Your task to perform on an android device: open app "Flipkart Online Shopping App" (install if not already installed) Image 0: 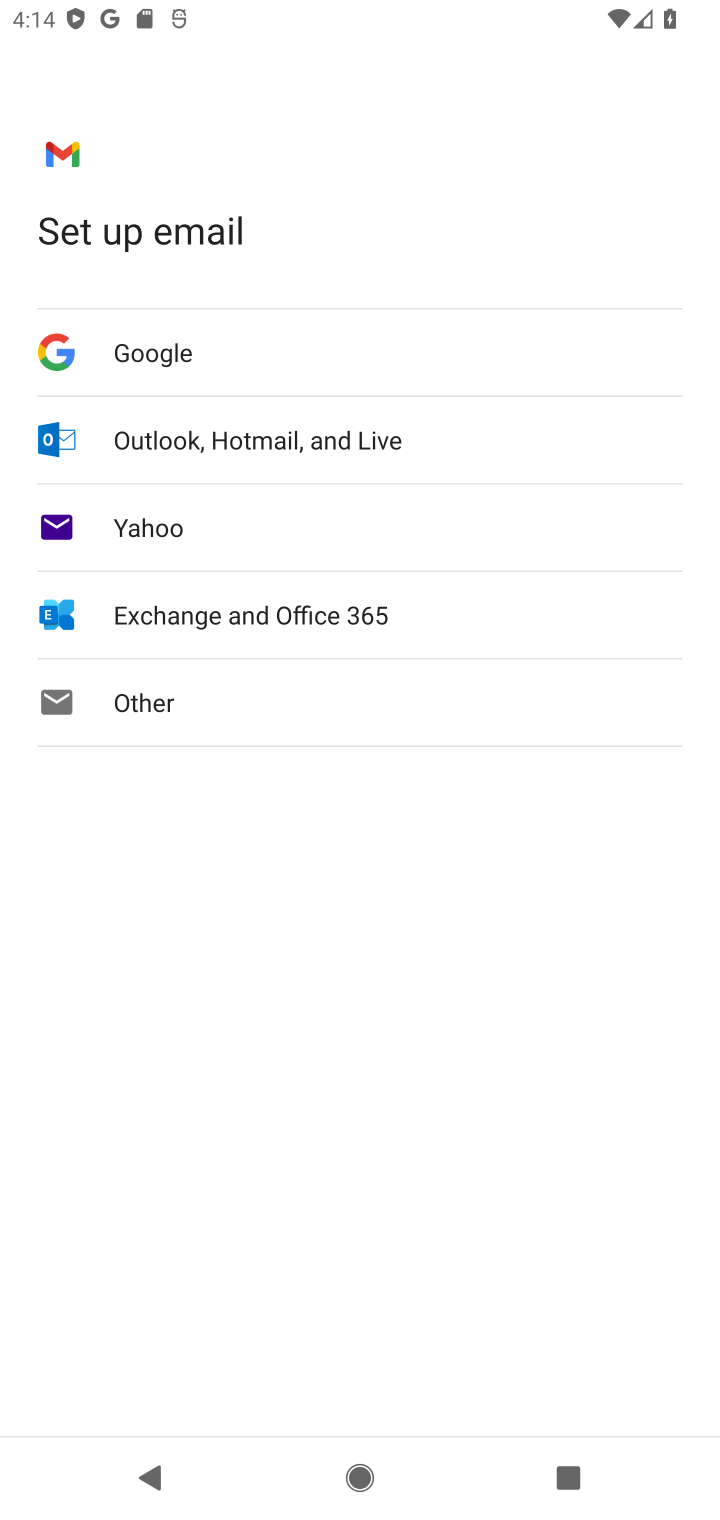
Step 0: press home button
Your task to perform on an android device: open app "Flipkart Online Shopping App" (install if not already installed) Image 1: 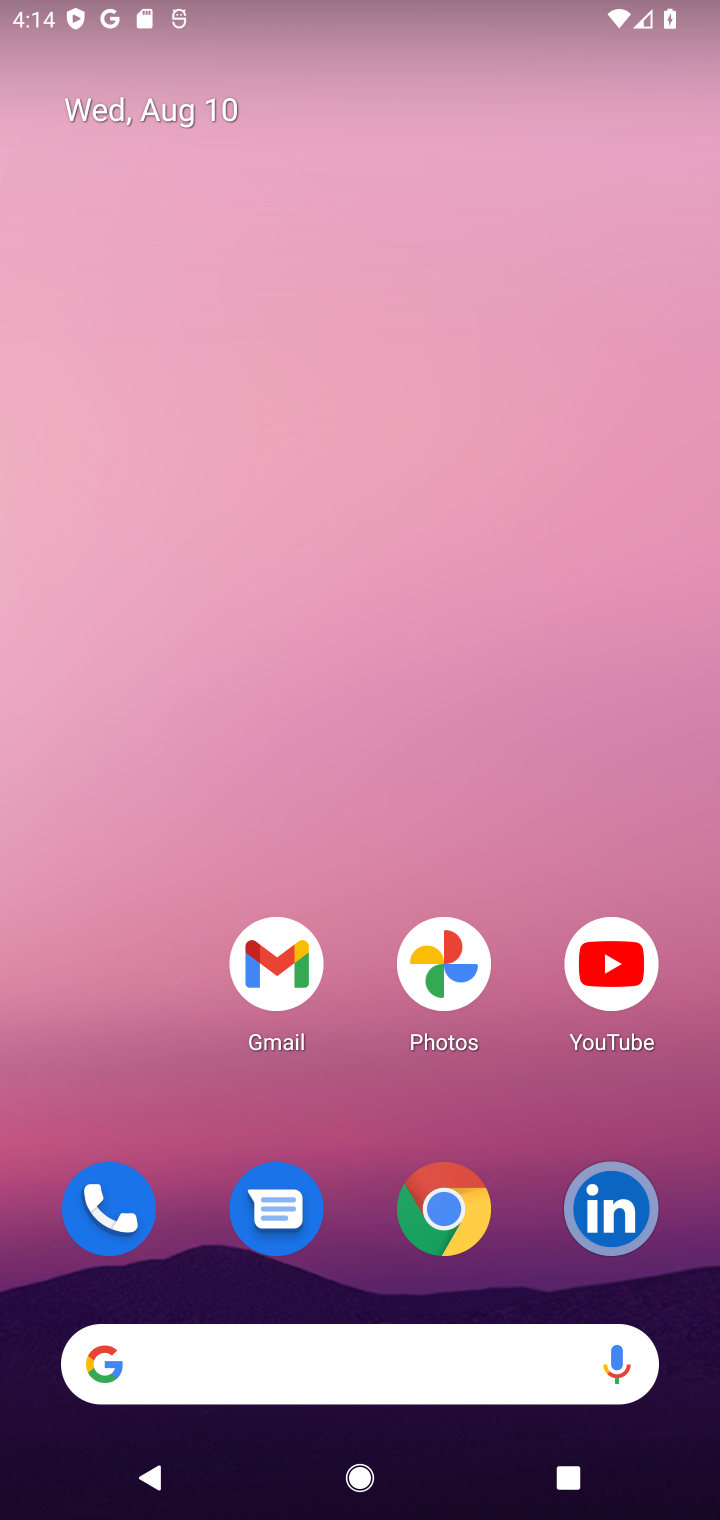
Step 1: drag from (202, 1297) to (268, 272)
Your task to perform on an android device: open app "Flipkart Online Shopping App" (install if not already installed) Image 2: 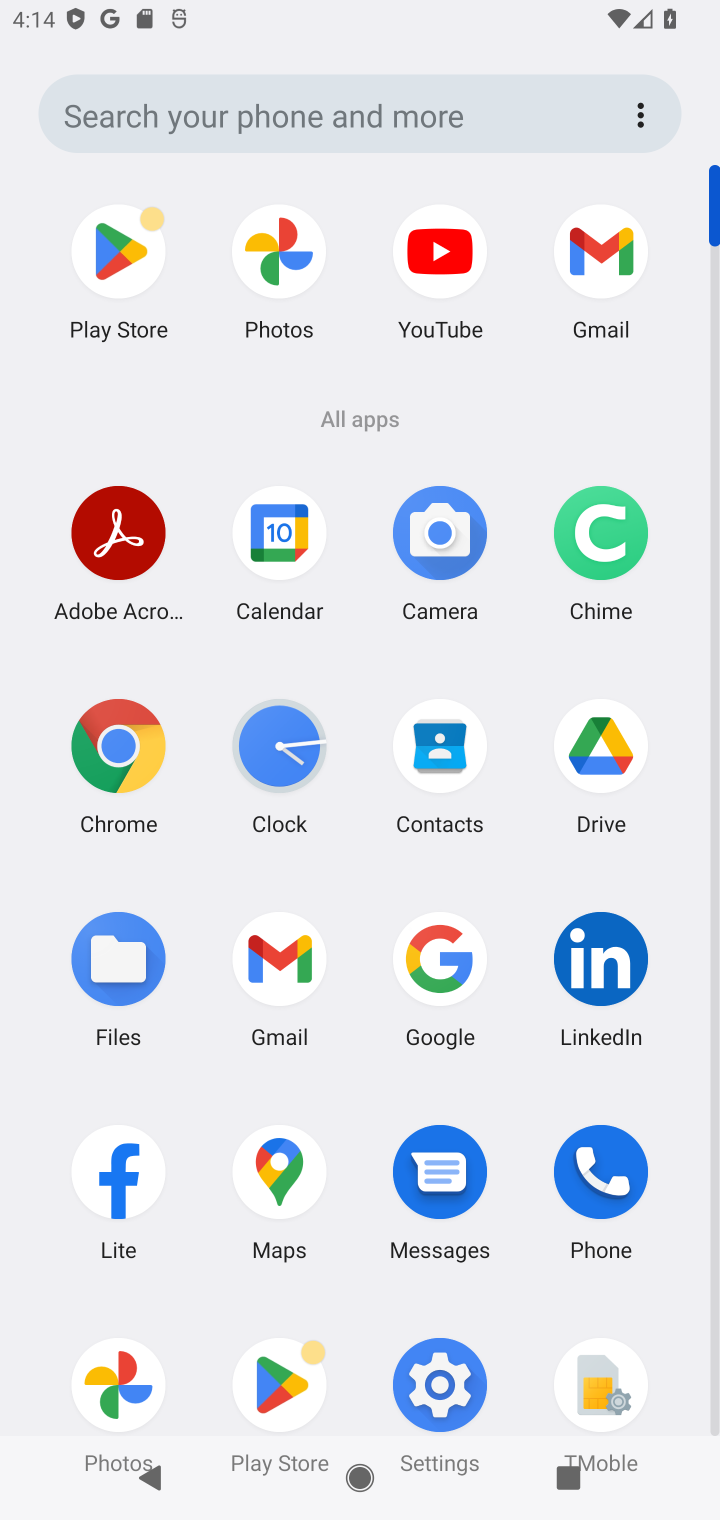
Step 2: click (386, 131)
Your task to perform on an android device: open app "Flipkart Online Shopping App" (install if not already installed) Image 3: 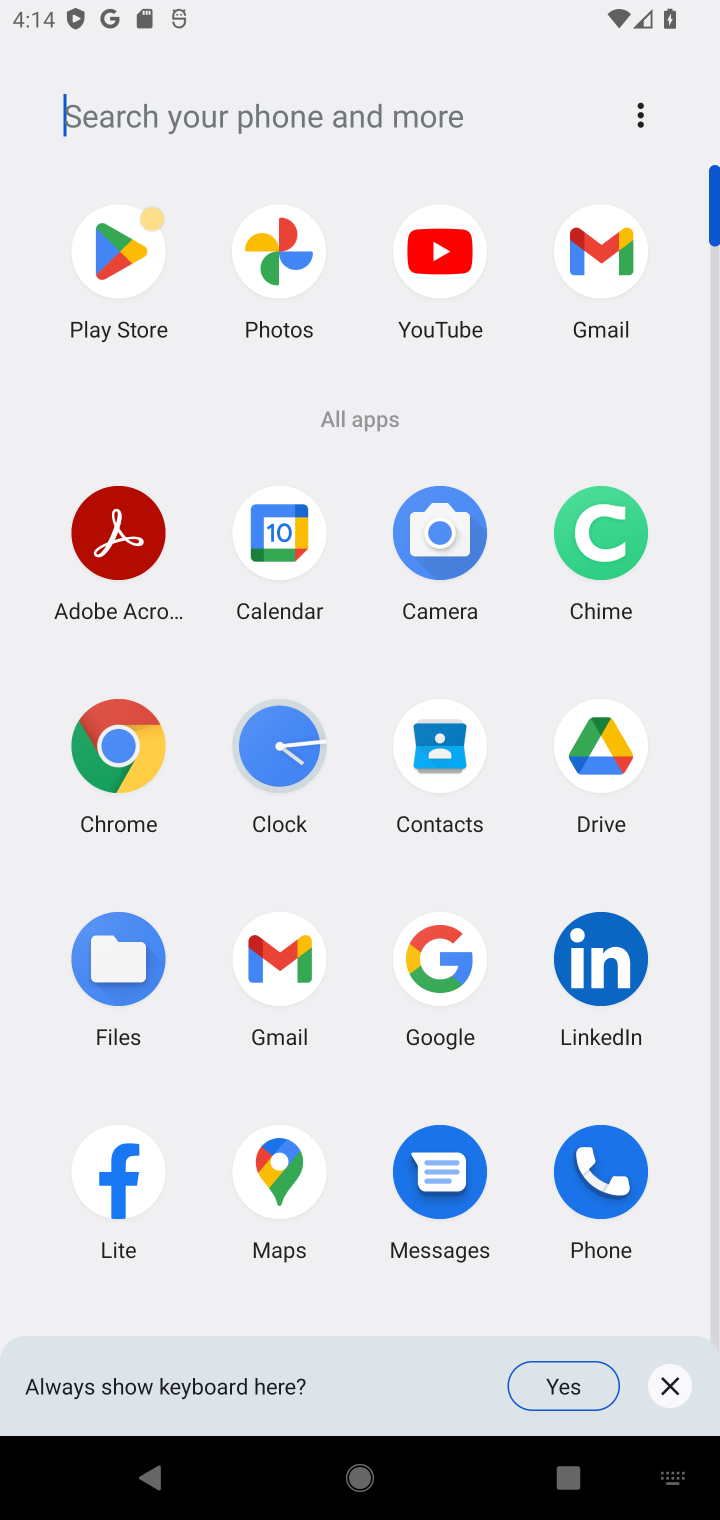
Step 3: click (112, 289)
Your task to perform on an android device: open app "Flipkart Online Shopping App" (install if not already installed) Image 4: 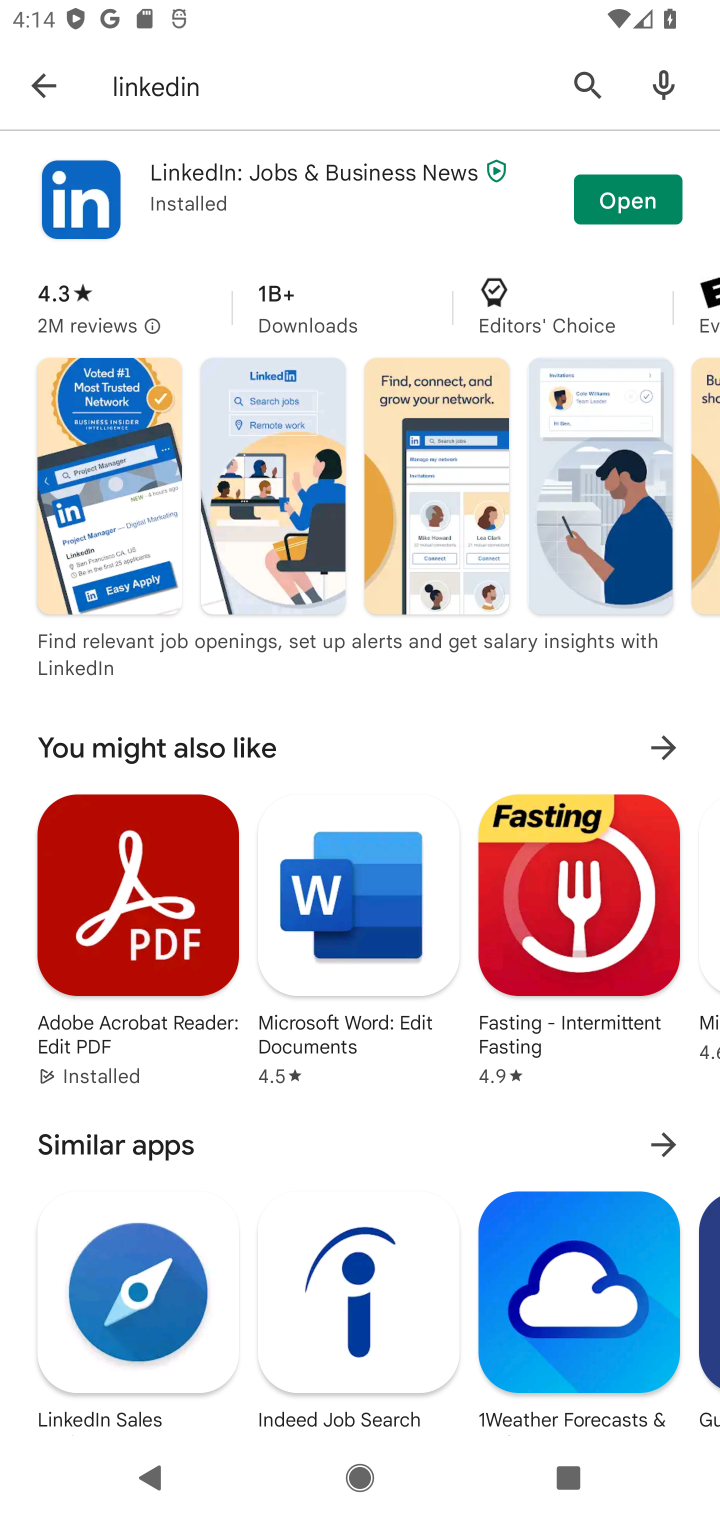
Step 4: click (586, 69)
Your task to perform on an android device: open app "Flipkart Online Shopping App" (install if not already installed) Image 5: 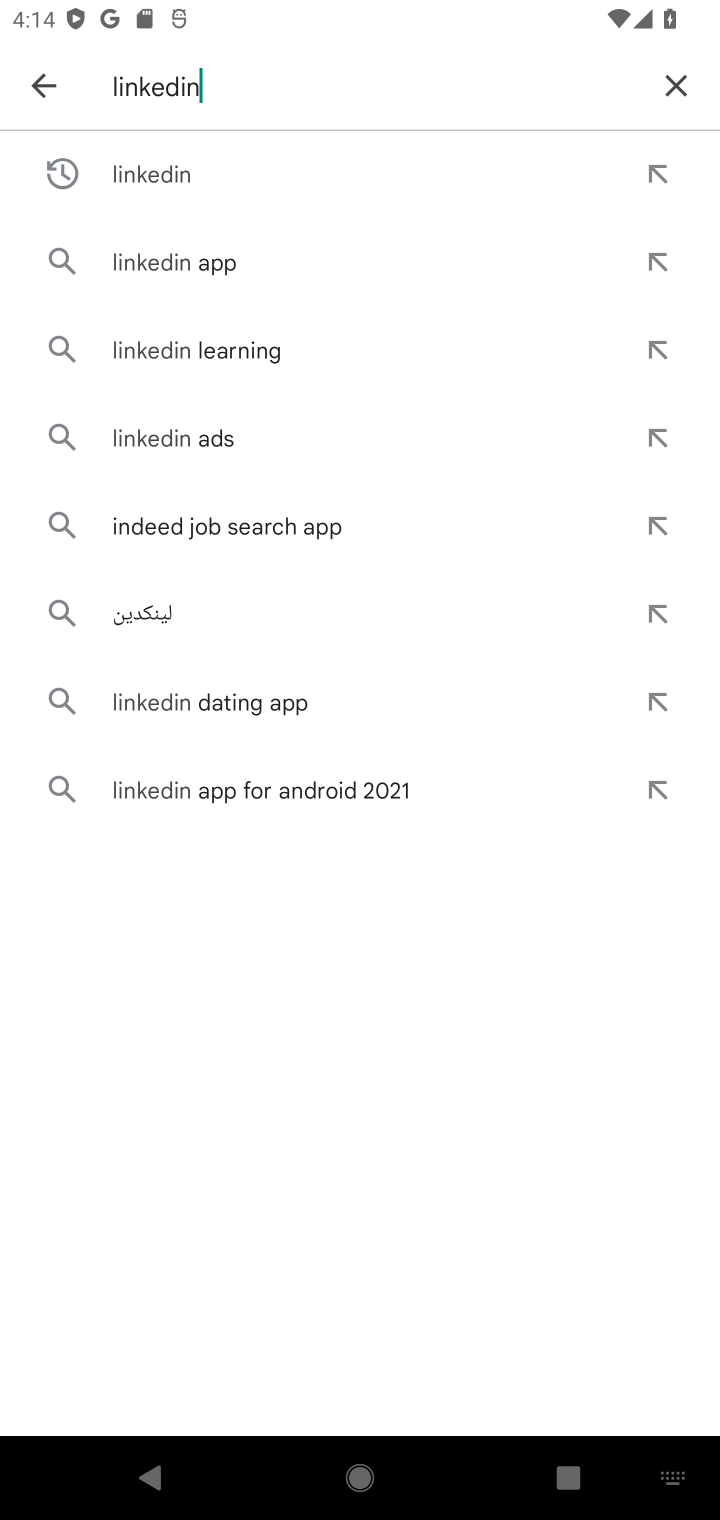
Step 5: click (686, 92)
Your task to perform on an android device: open app "Flipkart Online Shopping App" (install if not already installed) Image 6: 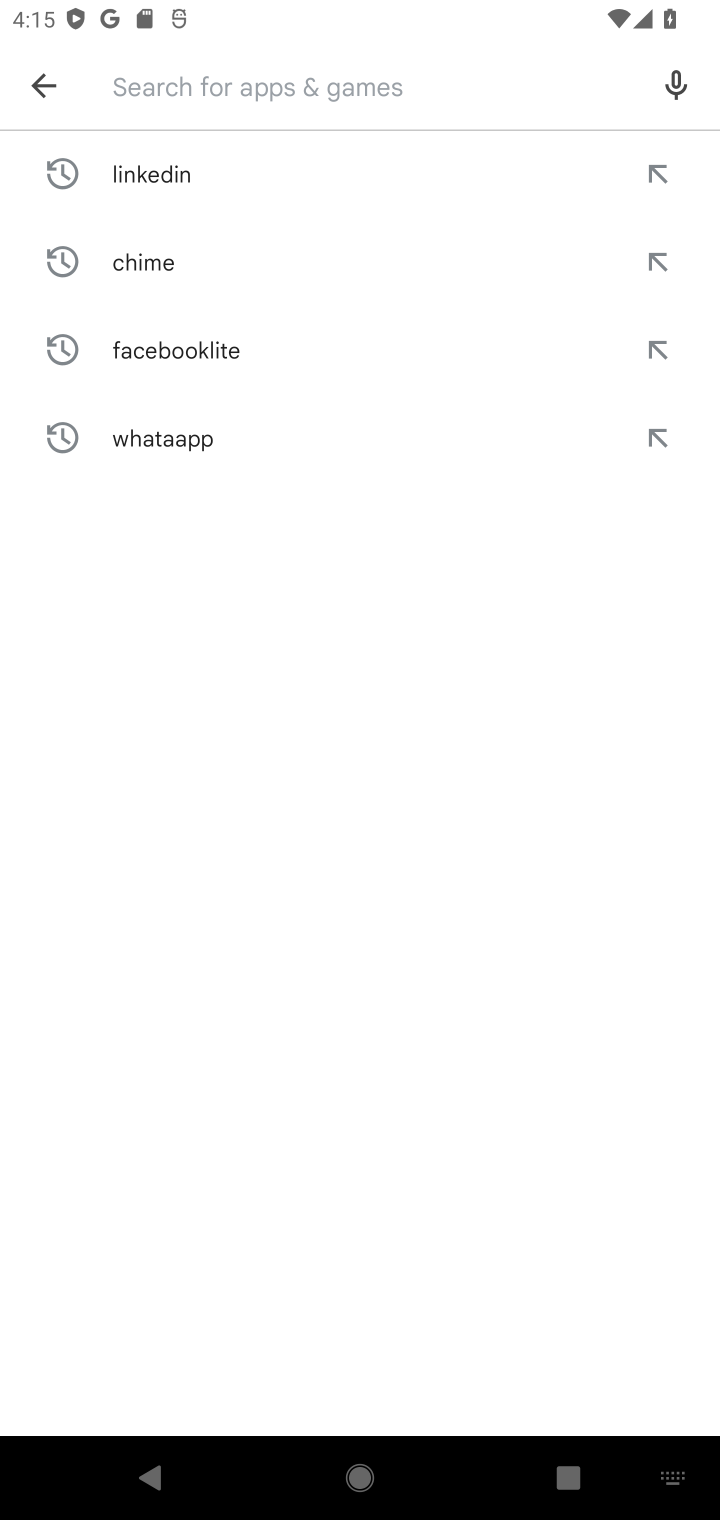
Step 6: type "flipkart"
Your task to perform on an android device: open app "Flipkart Online Shopping App" (install if not already installed) Image 7: 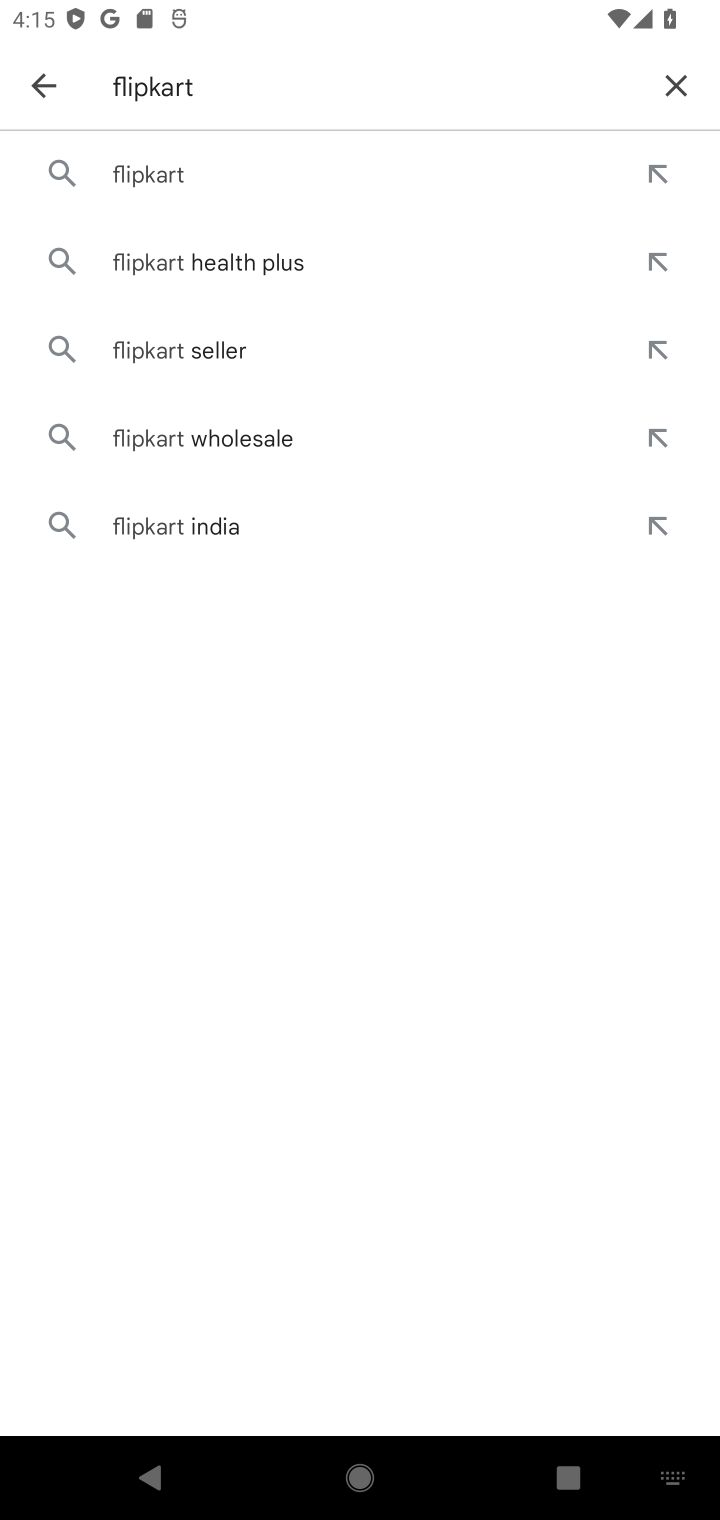
Step 7: click (451, 152)
Your task to perform on an android device: open app "Flipkart Online Shopping App" (install if not already installed) Image 8: 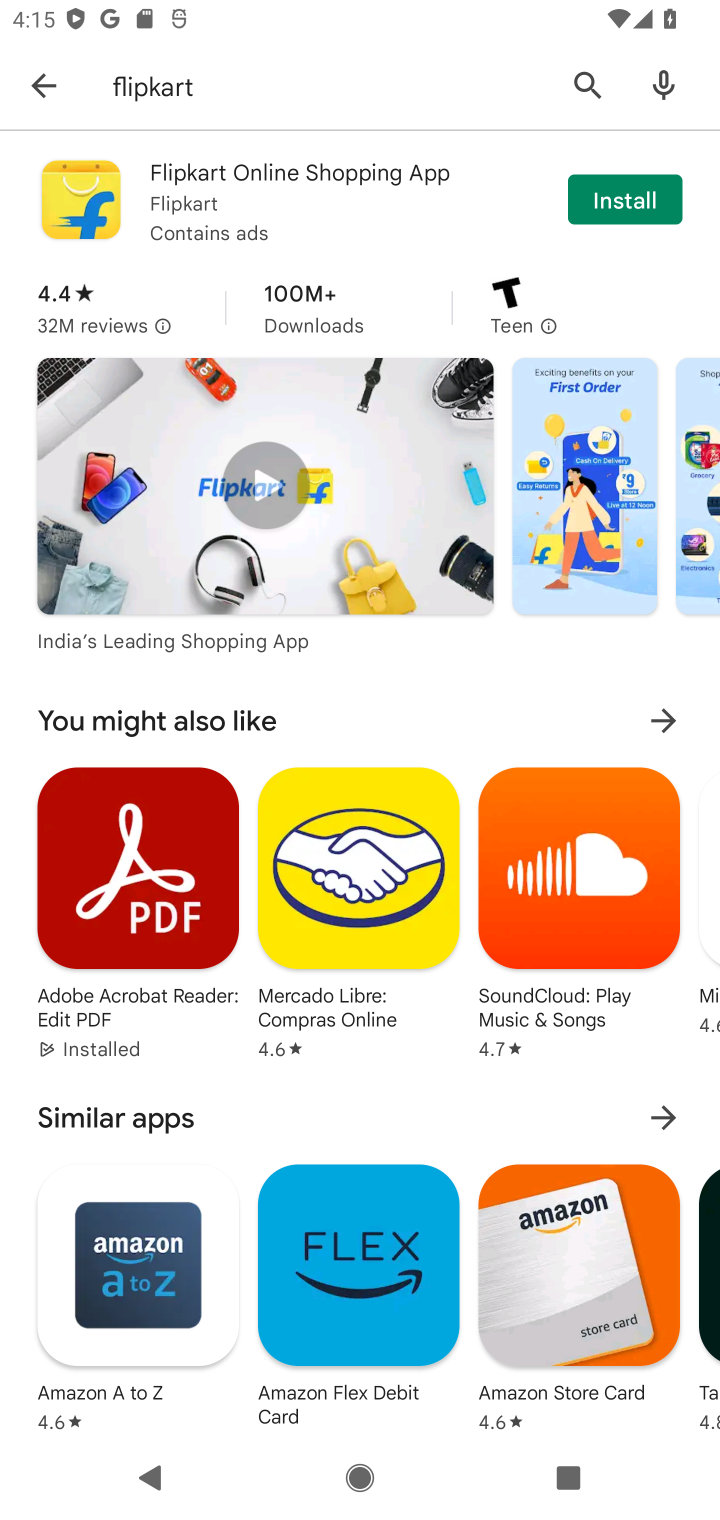
Step 8: click (581, 224)
Your task to perform on an android device: open app "Flipkart Online Shopping App" (install if not already installed) Image 9: 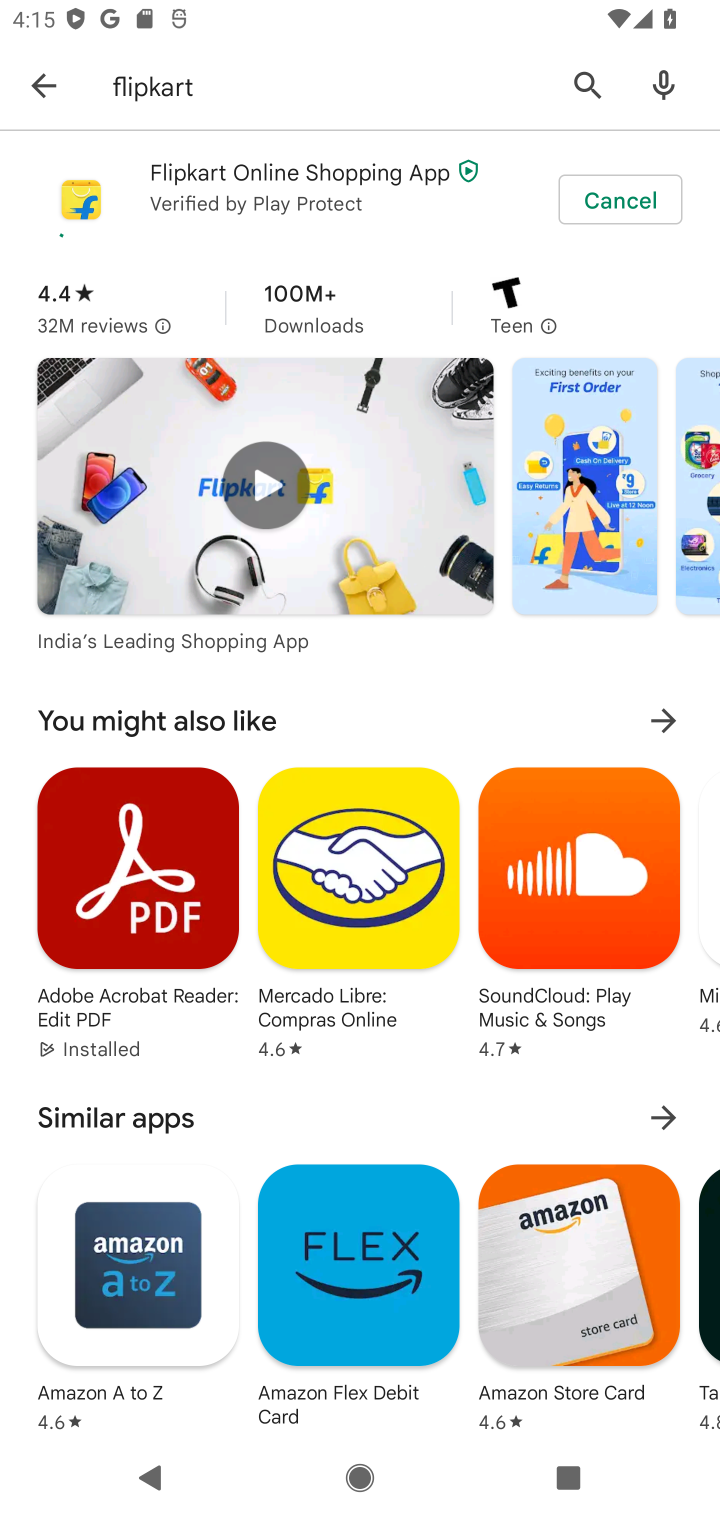
Step 9: task complete